Your task to perform on an android device: uninstall "VLC for Android" Image 0: 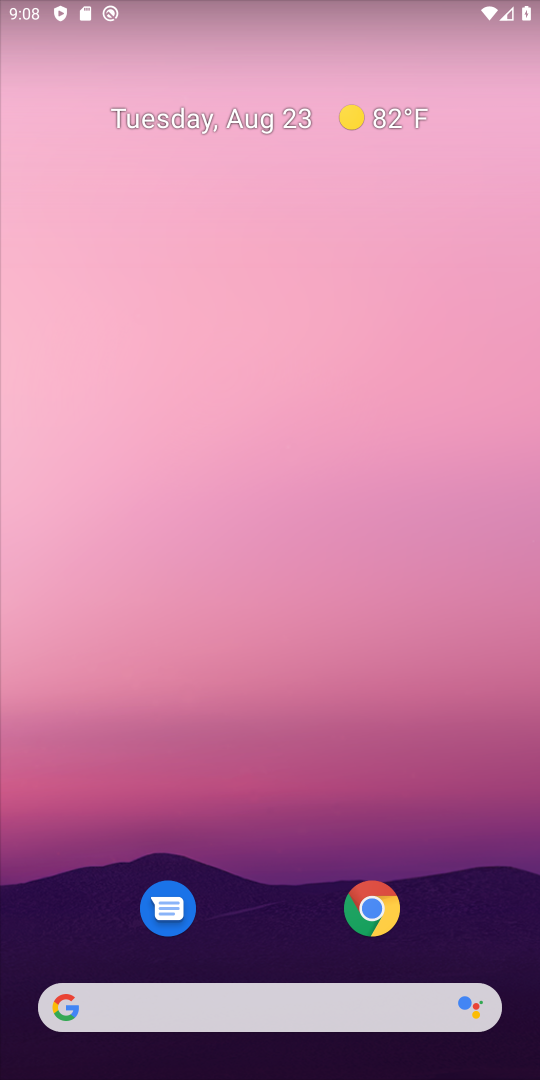
Step 0: drag from (282, 953) to (262, 250)
Your task to perform on an android device: uninstall "VLC for Android" Image 1: 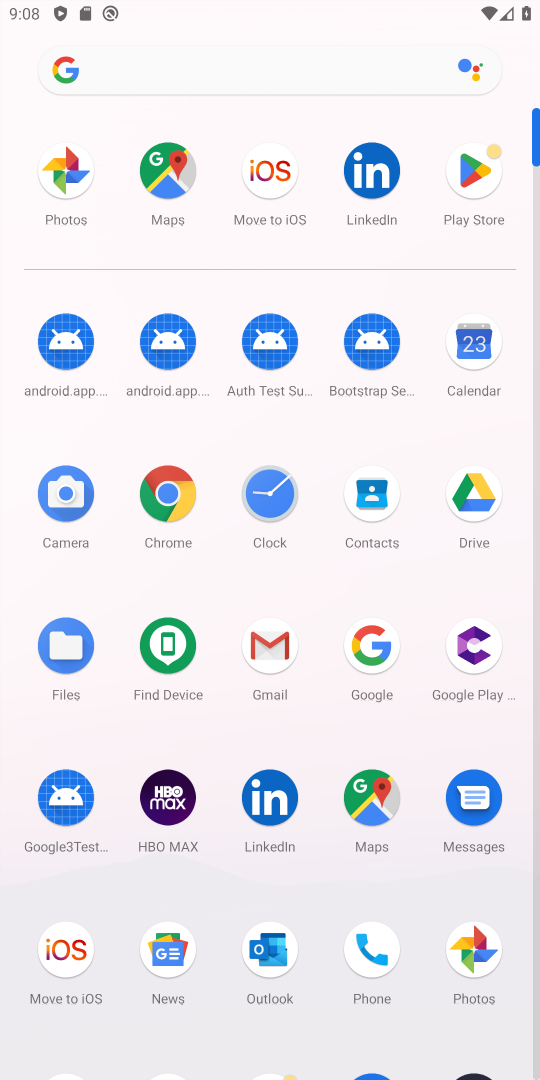
Step 1: click (464, 201)
Your task to perform on an android device: uninstall "VLC for Android" Image 2: 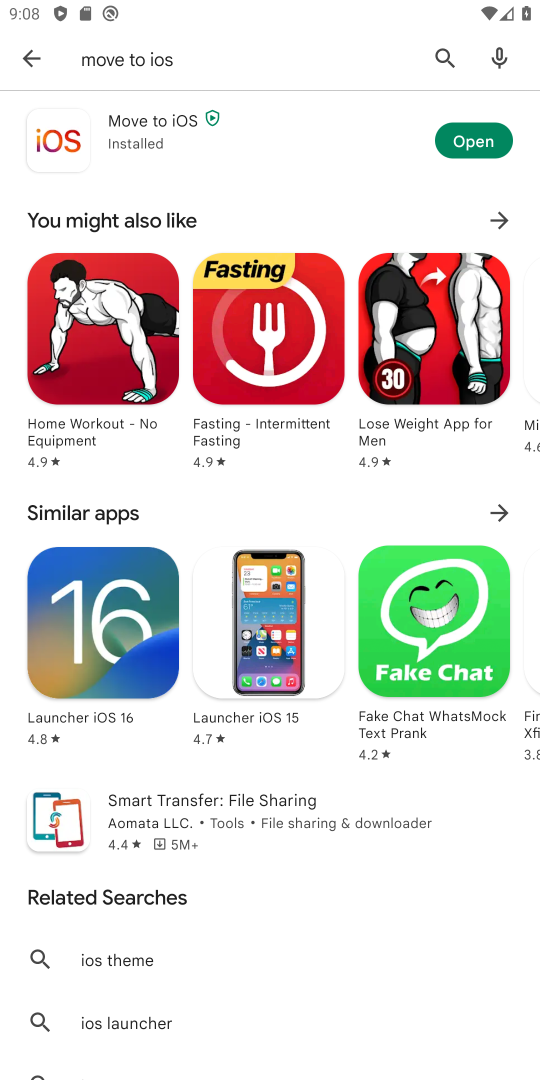
Step 2: click (186, 65)
Your task to perform on an android device: uninstall "VLC for Android" Image 3: 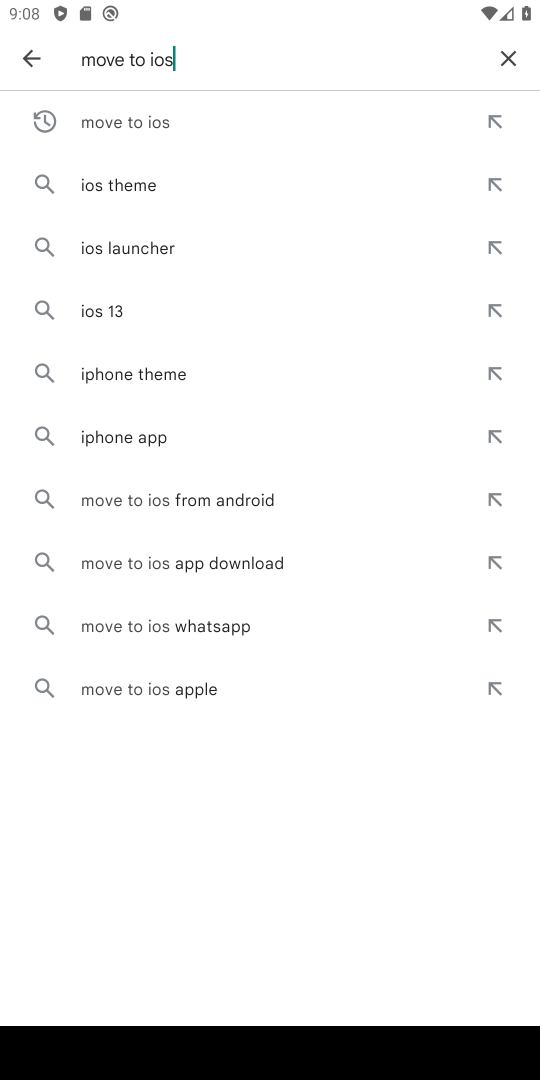
Step 3: click (509, 47)
Your task to perform on an android device: uninstall "VLC for Android" Image 4: 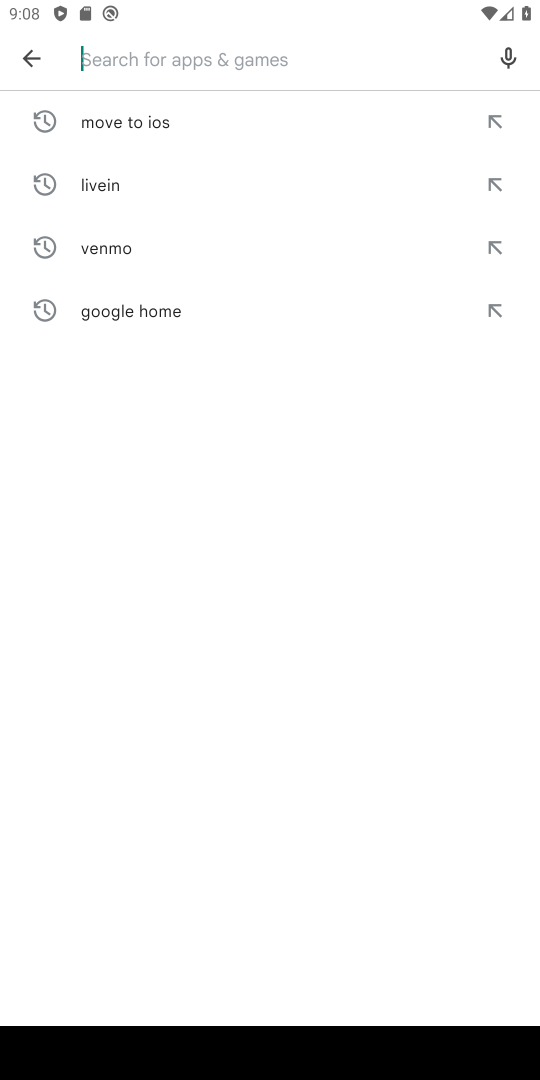
Step 4: type "VLC"
Your task to perform on an android device: uninstall "VLC for Android" Image 5: 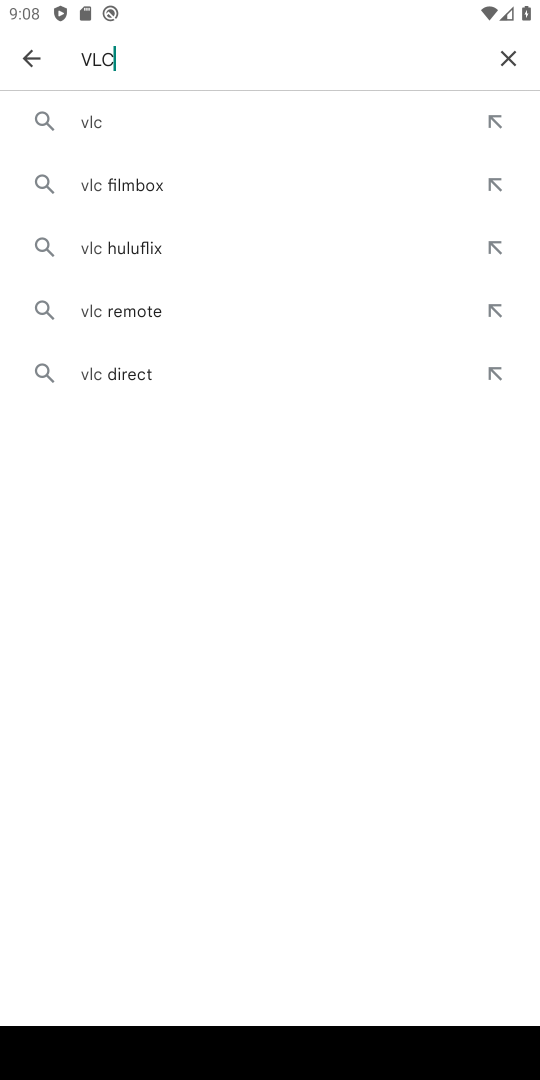
Step 5: click (117, 122)
Your task to perform on an android device: uninstall "VLC for Android" Image 6: 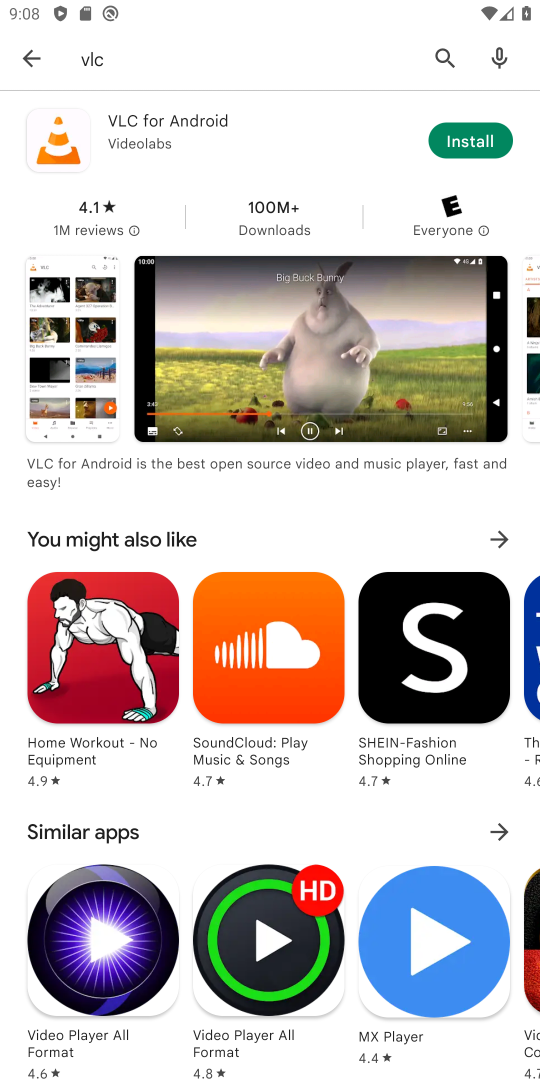
Step 6: task complete